Your task to perform on an android device: delete location history Image 0: 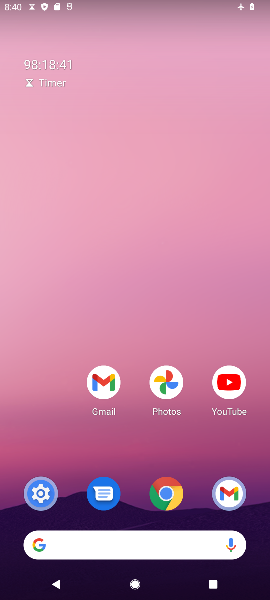
Step 0: drag from (152, 490) to (145, 170)
Your task to perform on an android device: delete location history Image 1: 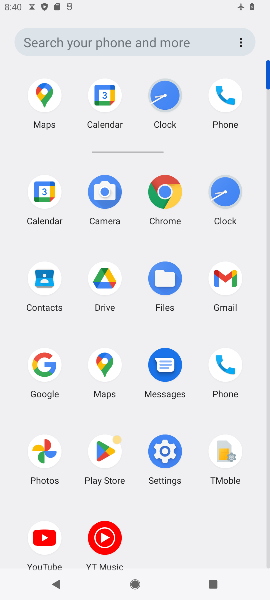
Step 1: click (169, 447)
Your task to perform on an android device: delete location history Image 2: 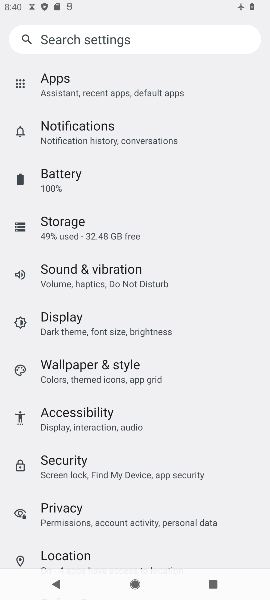
Step 2: drag from (97, 477) to (155, 229)
Your task to perform on an android device: delete location history Image 3: 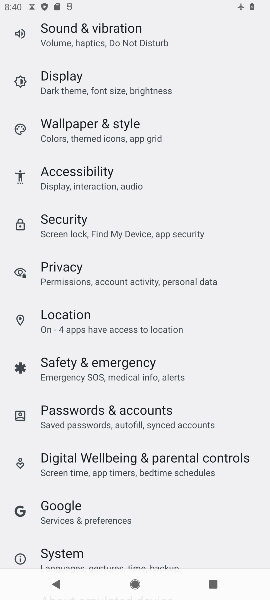
Step 3: click (102, 320)
Your task to perform on an android device: delete location history Image 4: 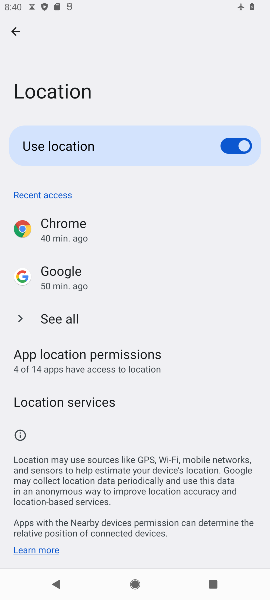
Step 4: click (29, 439)
Your task to perform on an android device: delete location history Image 5: 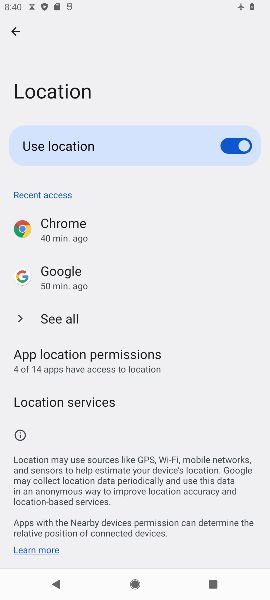
Step 5: click (30, 430)
Your task to perform on an android device: delete location history Image 6: 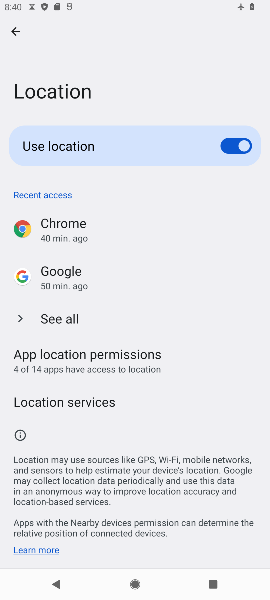
Step 6: click (17, 430)
Your task to perform on an android device: delete location history Image 7: 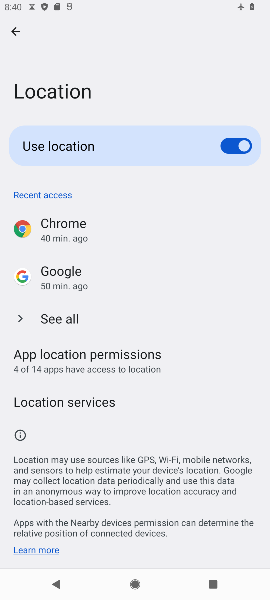
Step 7: click (51, 399)
Your task to perform on an android device: delete location history Image 8: 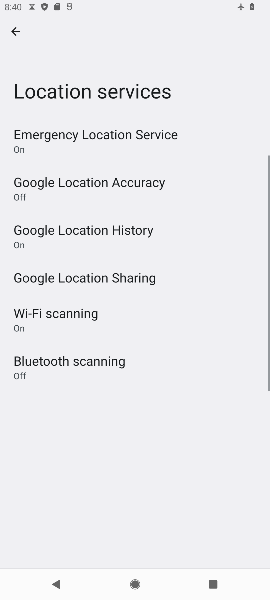
Step 8: click (96, 231)
Your task to perform on an android device: delete location history Image 9: 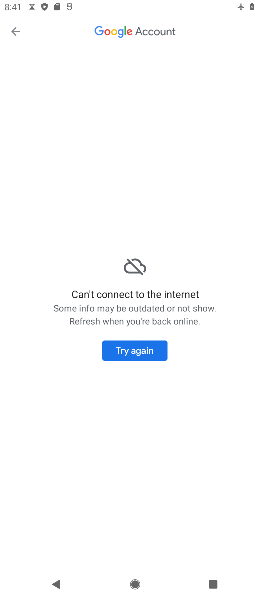
Step 9: task complete